Your task to perform on an android device: When is my next meeting? Image 0: 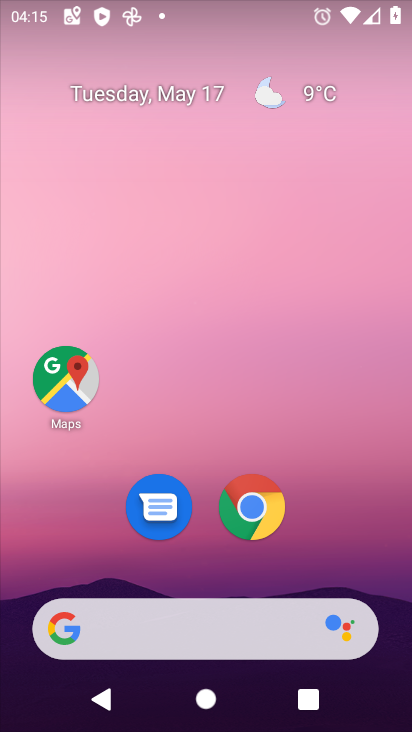
Step 0: click (111, 91)
Your task to perform on an android device: When is my next meeting? Image 1: 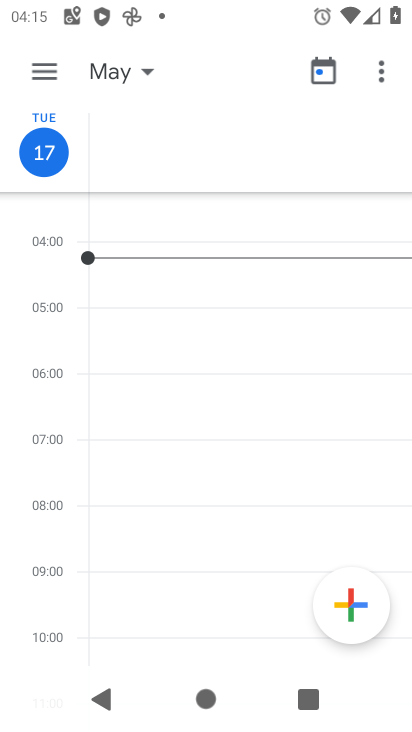
Step 1: drag from (40, 340) to (40, 210)
Your task to perform on an android device: When is my next meeting? Image 2: 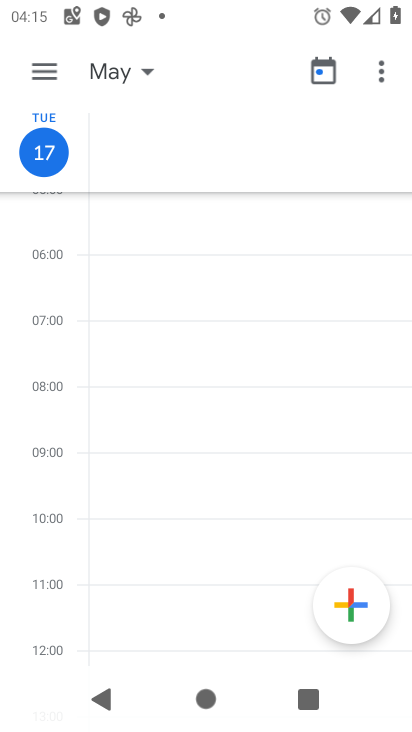
Step 2: drag from (51, 299) to (33, 663)
Your task to perform on an android device: When is my next meeting? Image 3: 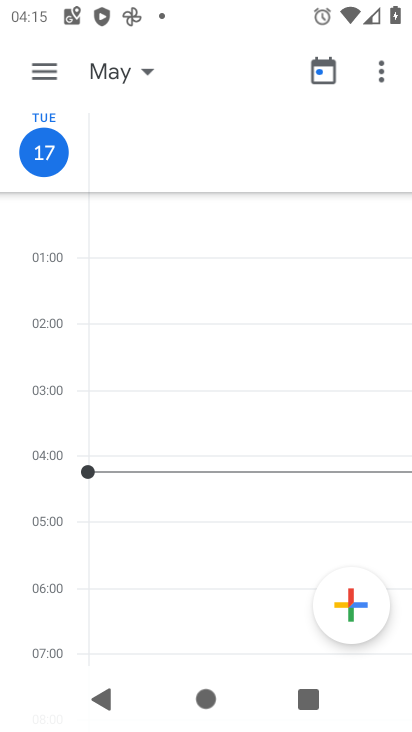
Step 3: drag from (58, 368) to (61, 568)
Your task to perform on an android device: When is my next meeting? Image 4: 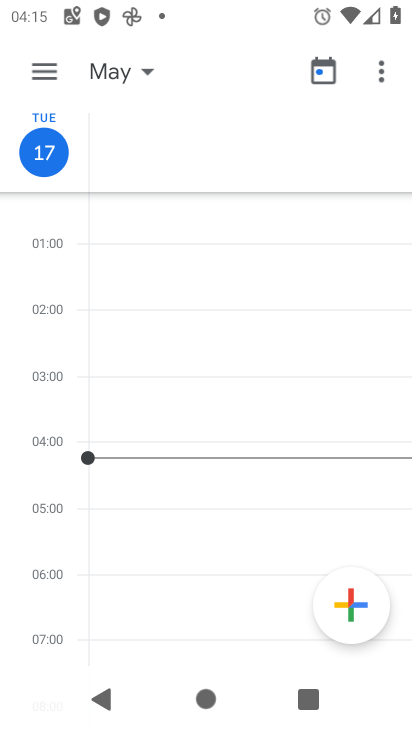
Step 4: drag from (34, 241) to (45, 587)
Your task to perform on an android device: When is my next meeting? Image 5: 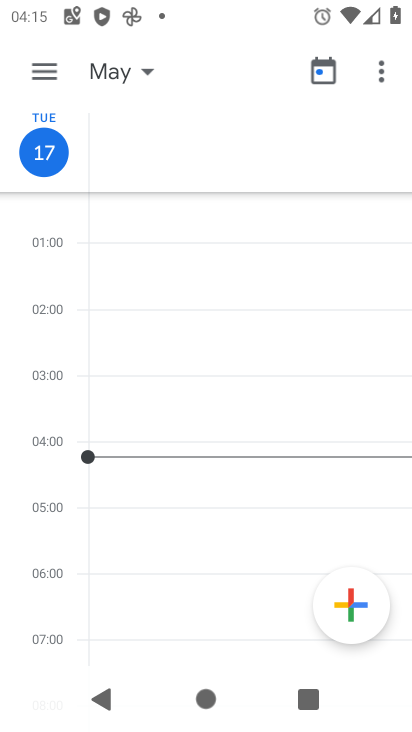
Step 5: drag from (54, 267) to (43, 573)
Your task to perform on an android device: When is my next meeting? Image 6: 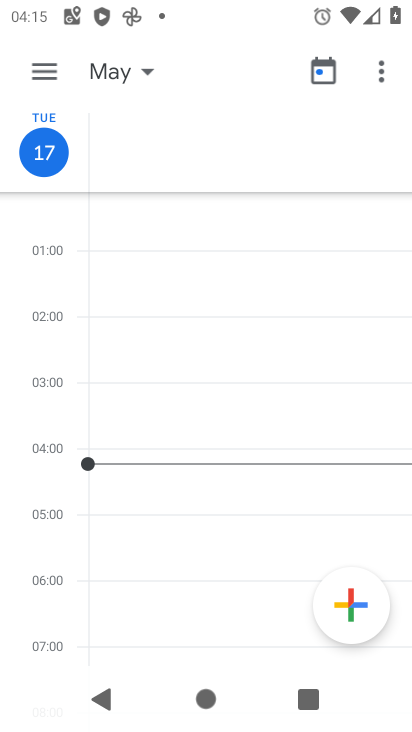
Step 6: drag from (56, 297) to (46, 552)
Your task to perform on an android device: When is my next meeting? Image 7: 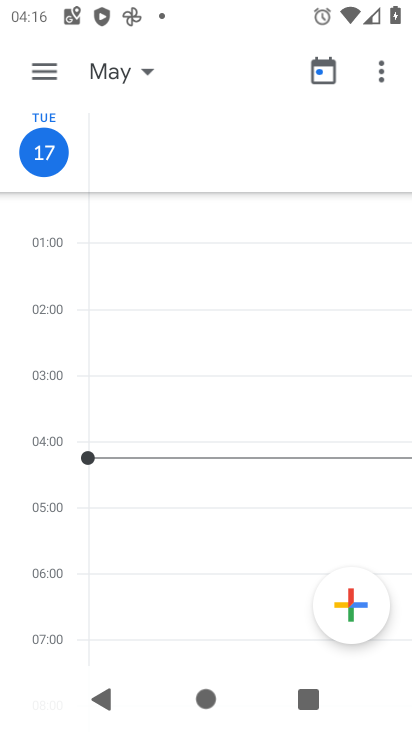
Step 7: drag from (32, 266) to (52, 496)
Your task to perform on an android device: When is my next meeting? Image 8: 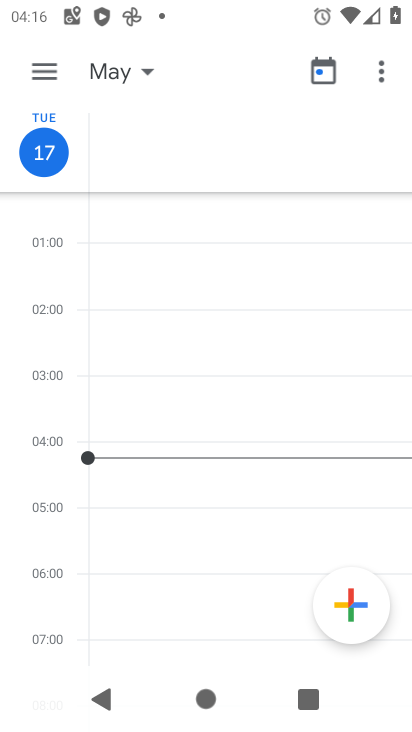
Step 8: click (41, 68)
Your task to perform on an android device: When is my next meeting? Image 9: 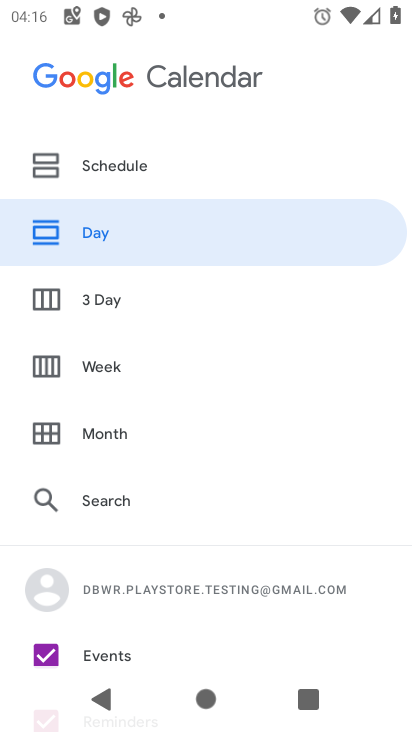
Step 9: click (122, 356)
Your task to perform on an android device: When is my next meeting? Image 10: 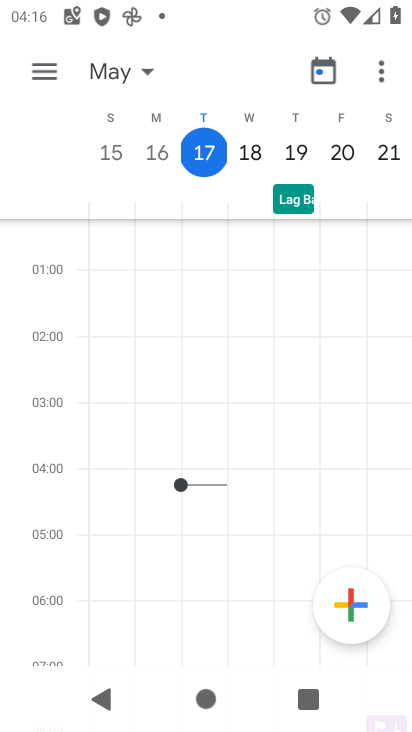
Step 10: task complete